Your task to perform on an android device: Go to Wikipedia Image 0: 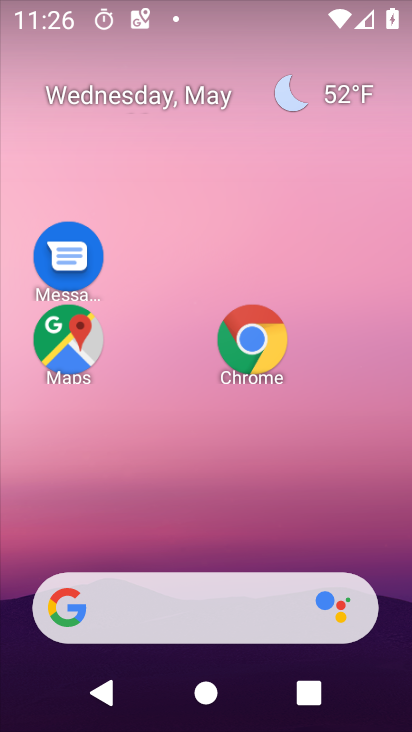
Step 0: drag from (205, 522) to (175, 97)
Your task to perform on an android device: Go to Wikipedia Image 1: 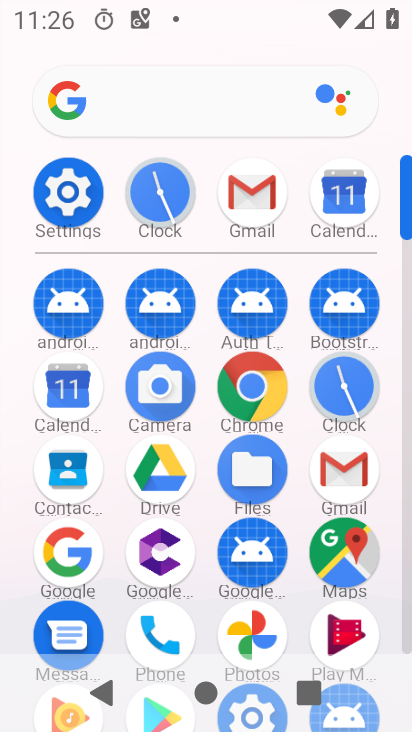
Step 1: click (248, 395)
Your task to perform on an android device: Go to Wikipedia Image 2: 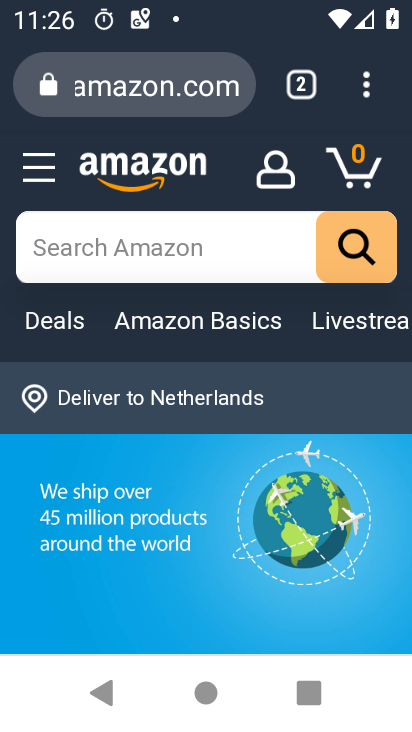
Step 2: press back button
Your task to perform on an android device: Go to Wikipedia Image 3: 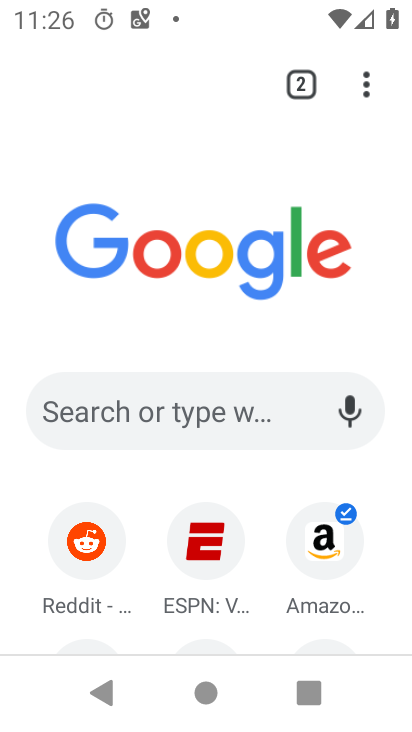
Step 3: drag from (259, 553) to (255, 323)
Your task to perform on an android device: Go to Wikipedia Image 4: 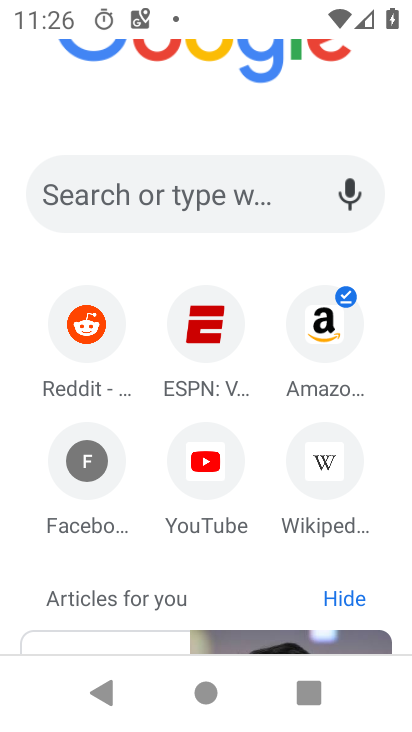
Step 4: click (317, 462)
Your task to perform on an android device: Go to Wikipedia Image 5: 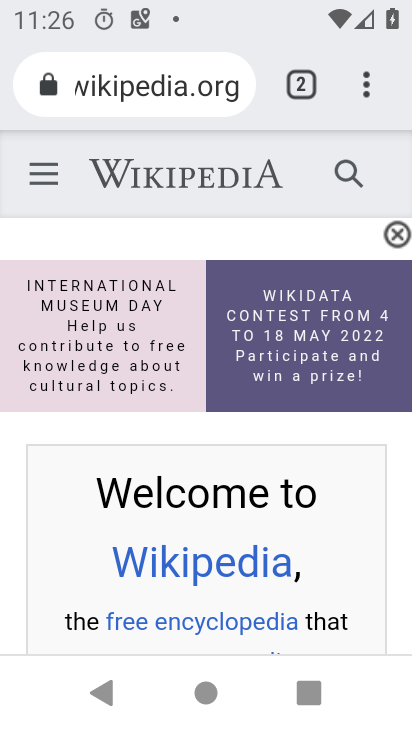
Step 5: task complete